Your task to perform on an android device: Go to ESPN.com Image 0: 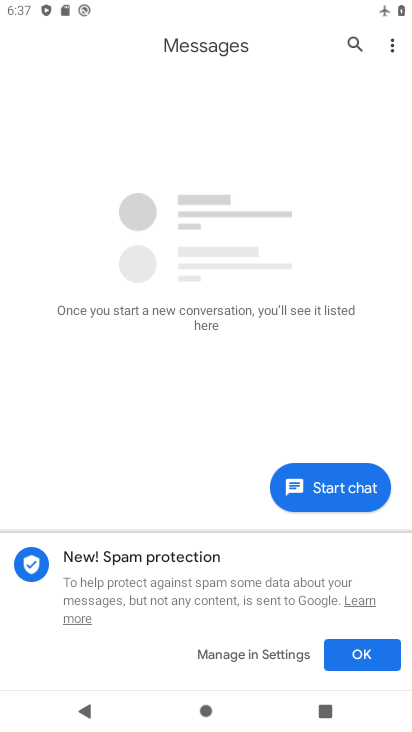
Step 0: press home button
Your task to perform on an android device: Go to ESPN.com Image 1: 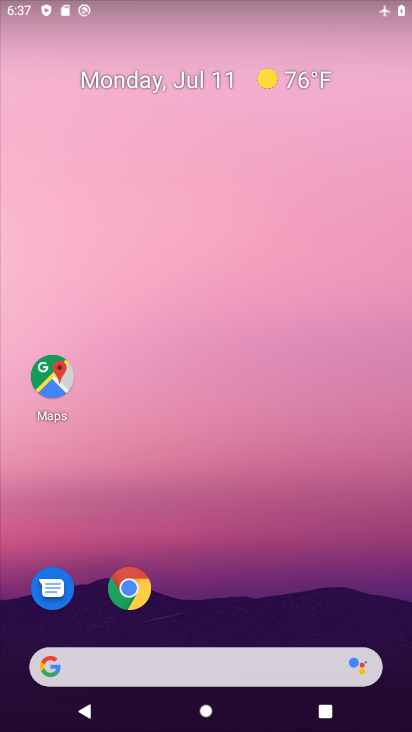
Step 1: click (129, 590)
Your task to perform on an android device: Go to ESPN.com Image 2: 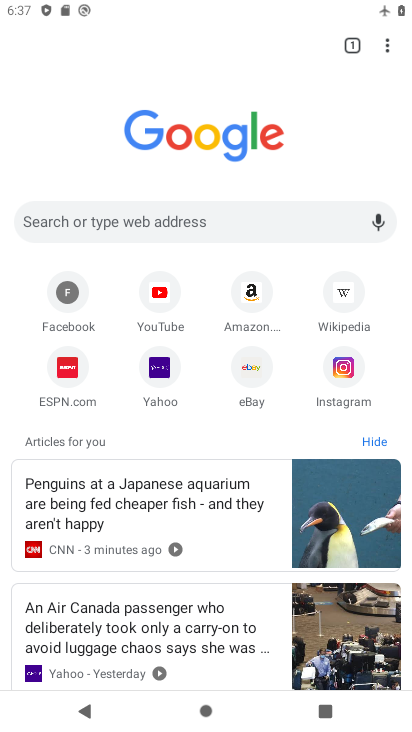
Step 2: click (60, 366)
Your task to perform on an android device: Go to ESPN.com Image 3: 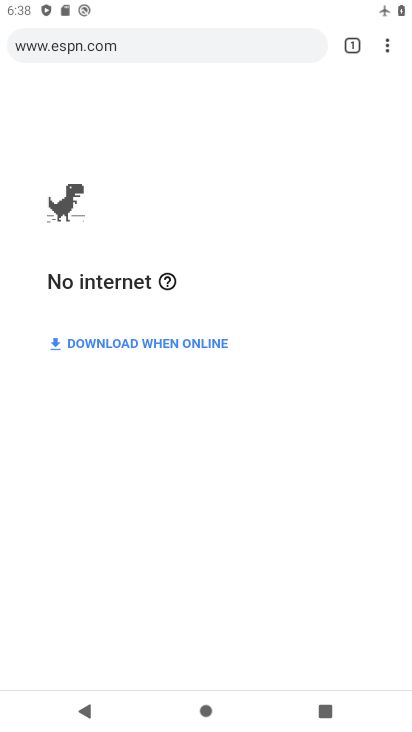
Step 3: task complete